Your task to perform on an android device: change the clock display to analog Image 0: 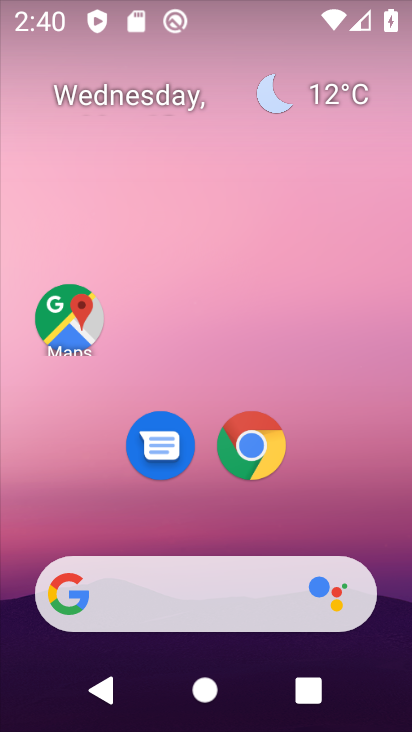
Step 0: drag from (366, 541) to (327, 1)
Your task to perform on an android device: change the clock display to analog Image 1: 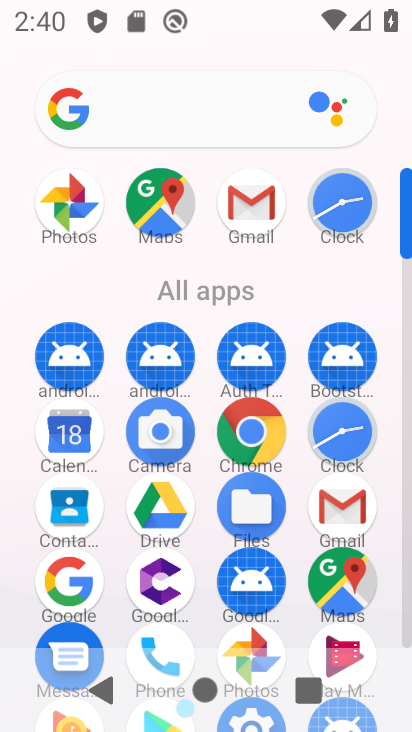
Step 1: click (343, 220)
Your task to perform on an android device: change the clock display to analog Image 2: 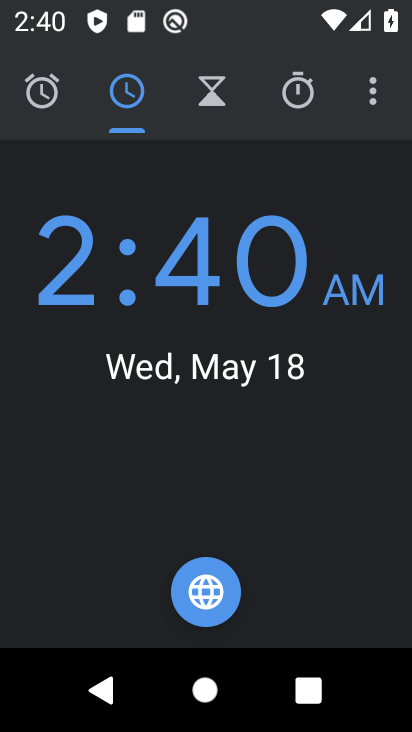
Step 2: click (361, 93)
Your task to perform on an android device: change the clock display to analog Image 3: 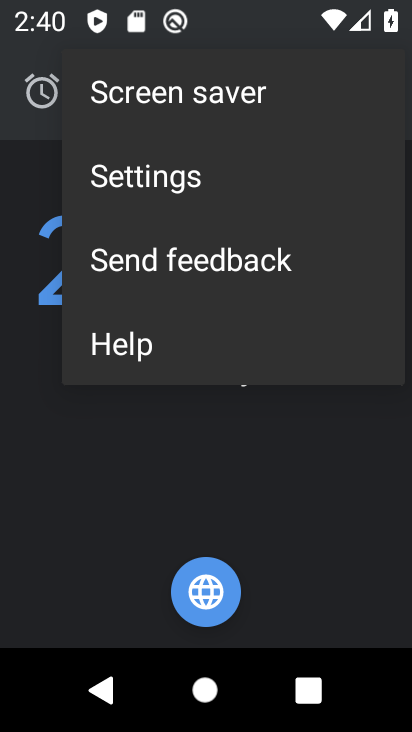
Step 3: click (124, 177)
Your task to perform on an android device: change the clock display to analog Image 4: 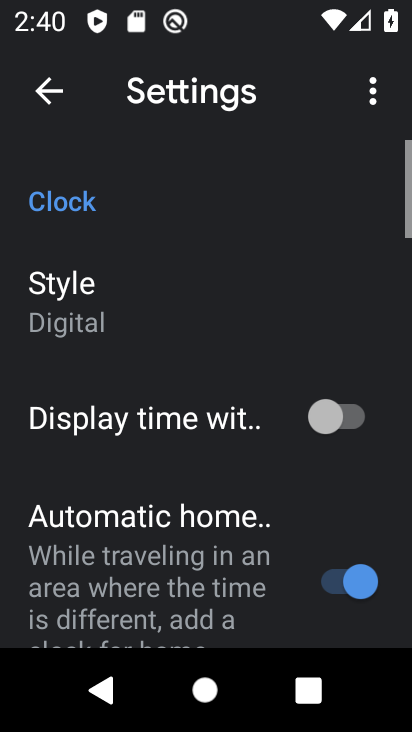
Step 4: click (132, 291)
Your task to perform on an android device: change the clock display to analog Image 5: 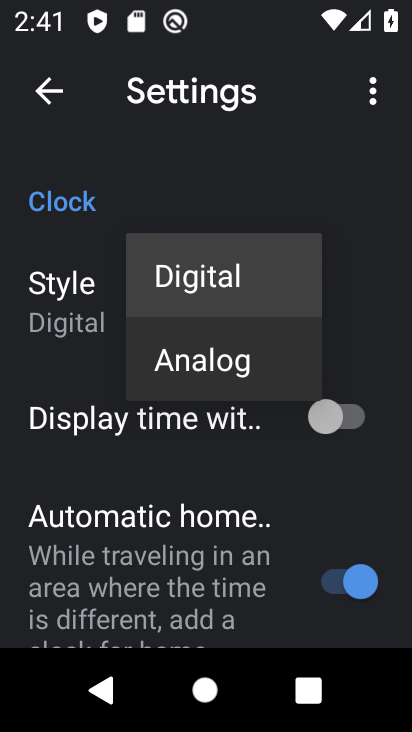
Step 5: click (202, 350)
Your task to perform on an android device: change the clock display to analog Image 6: 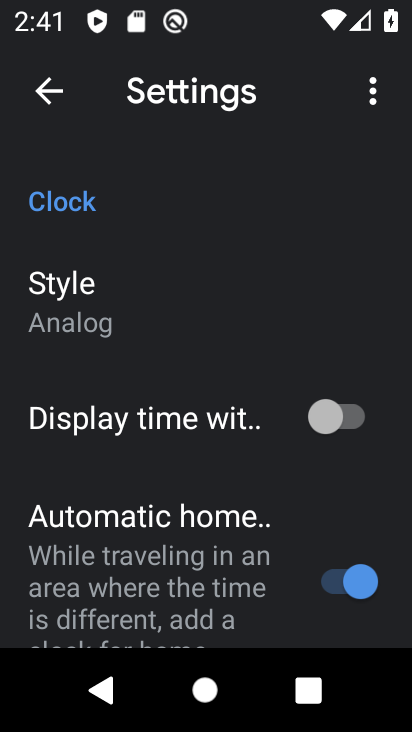
Step 6: task complete